Your task to perform on an android device: turn on showing notifications on the lock screen Image 0: 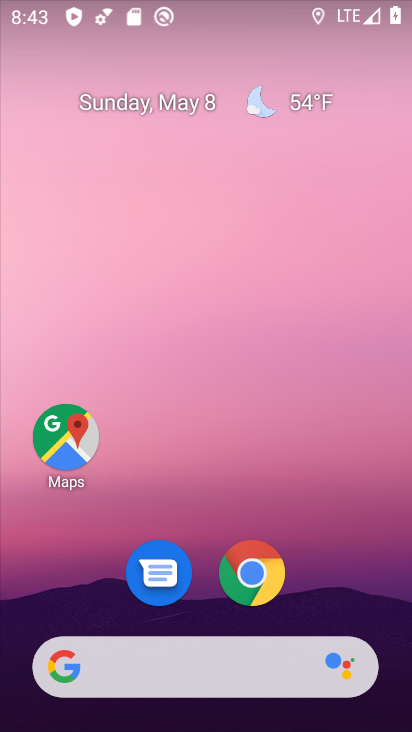
Step 0: drag from (215, 719) to (201, 167)
Your task to perform on an android device: turn on showing notifications on the lock screen Image 1: 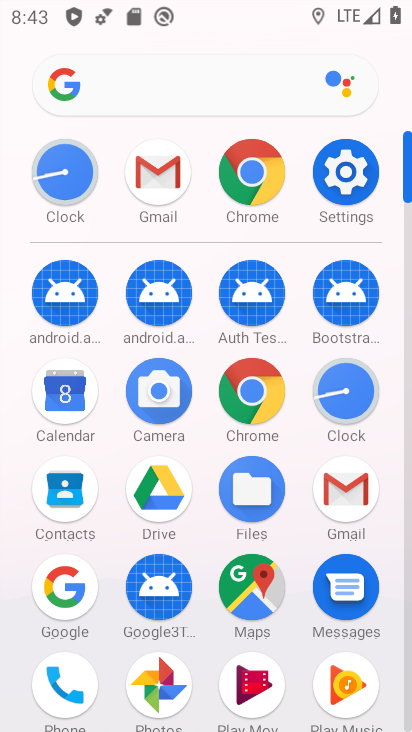
Step 1: click (348, 176)
Your task to perform on an android device: turn on showing notifications on the lock screen Image 2: 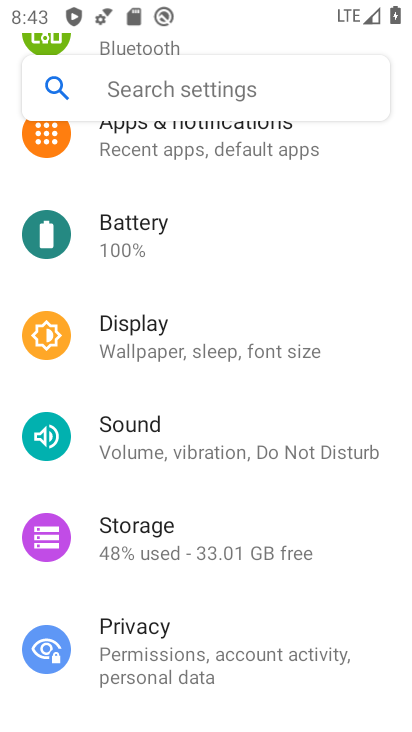
Step 2: click (149, 145)
Your task to perform on an android device: turn on showing notifications on the lock screen Image 3: 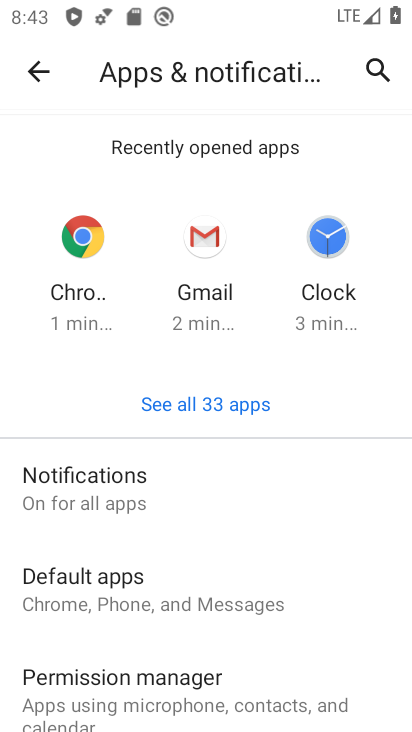
Step 3: click (73, 494)
Your task to perform on an android device: turn on showing notifications on the lock screen Image 4: 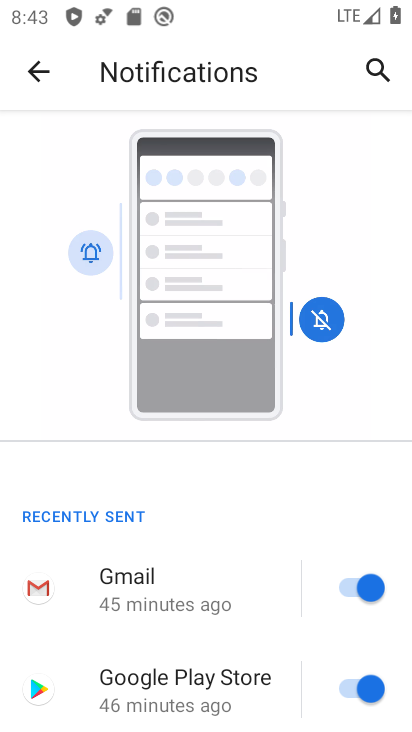
Step 4: drag from (202, 685) to (198, 425)
Your task to perform on an android device: turn on showing notifications on the lock screen Image 5: 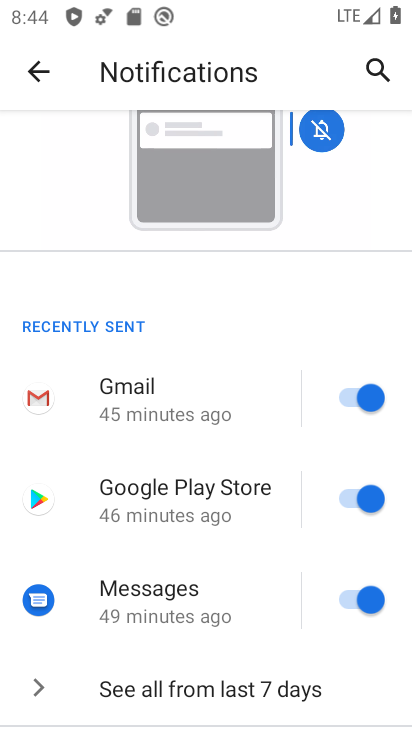
Step 5: drag from (166, 663) to (157, 378)
Your task to perform on an android device: turn on showing notifications on the lock screen Image 6: 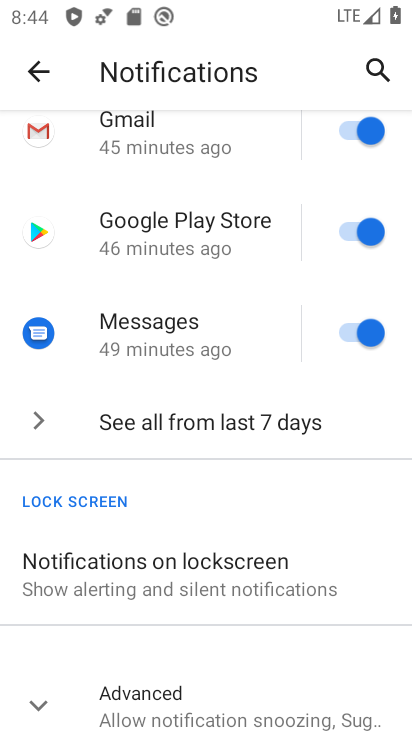
Step 6: click (166, 571)
Your task to perform on an android device: turn on showing notifications on the lock screen Image 7: 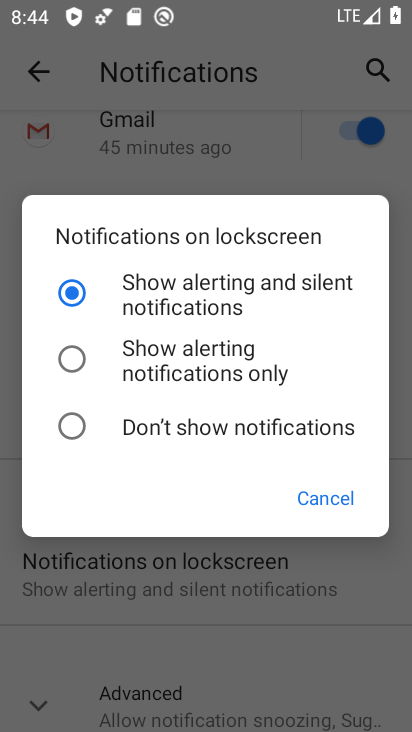
Step 7: click (325, 502)
Your task to perform on an android device: turn on showing notifications on the lock screen Image 8: 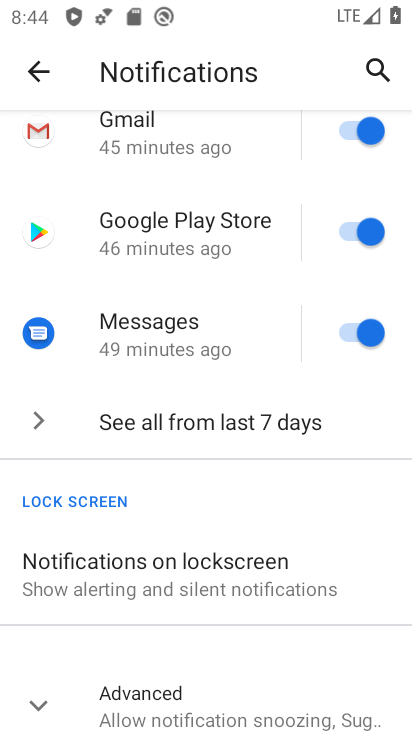
Step 8: task complete